Your task to perform on an android device: visit the assistant section in the google photos Image 0: 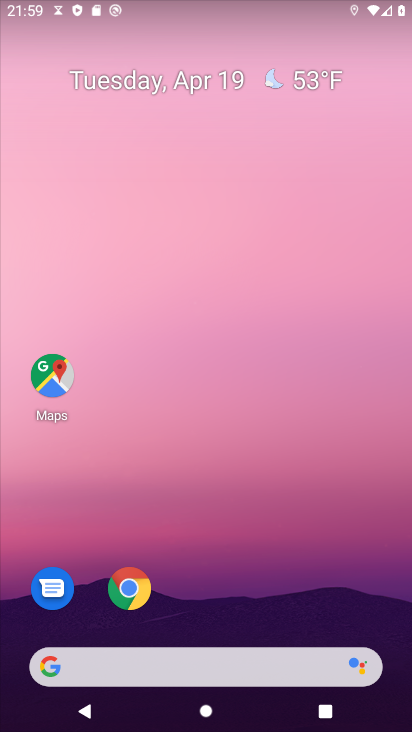
Step 0: drag from (217, 613) to (291, 176)
Your task to perform on an android device: visit the assistant section in the google photos Image 1: 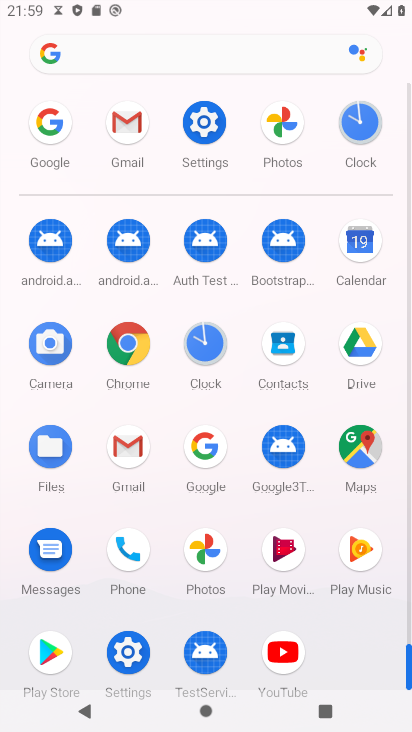
Step 1: click (201, 551)
Your task to perform on an android device: visit the assistant section in the google photos Image 2: 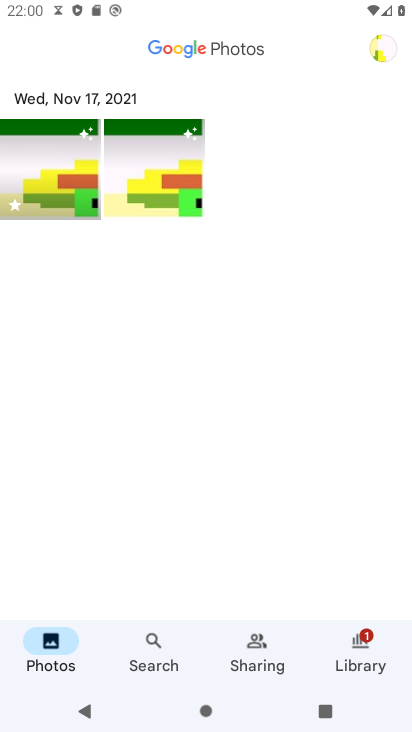
Step 2: click (359, 645)
Your task to perform on an android device: visit the assistant section in the google photos Image 3: 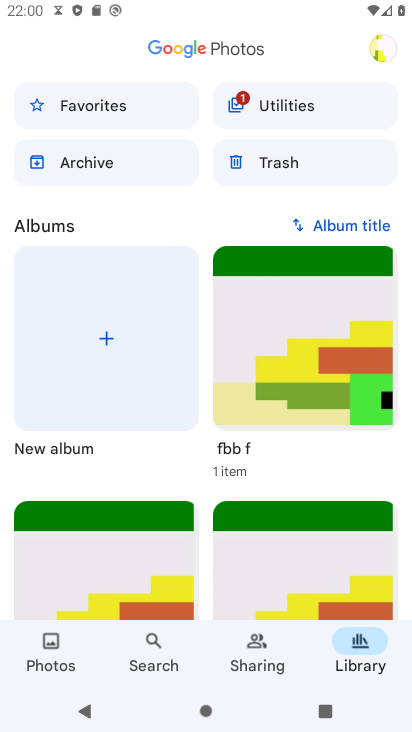
Step 3: click (273, 111)
Your task to perform on an android device: visit the assistant section in the google photos Image 4: 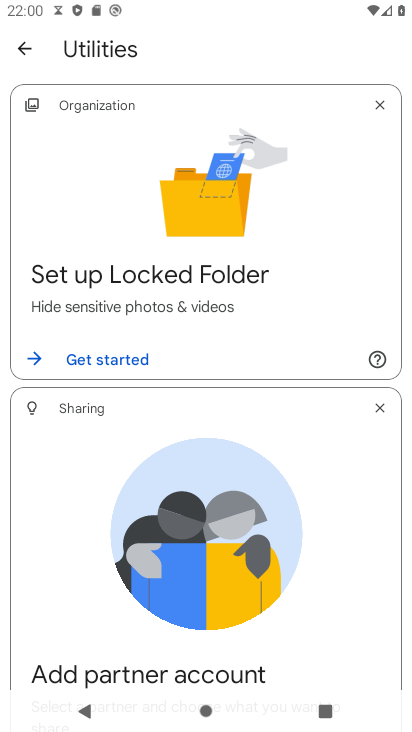
Step 4: drag from (326, 643) to (341, 318)
Your task to perform on an android device: visit the assistant section in the google photos Image 5: 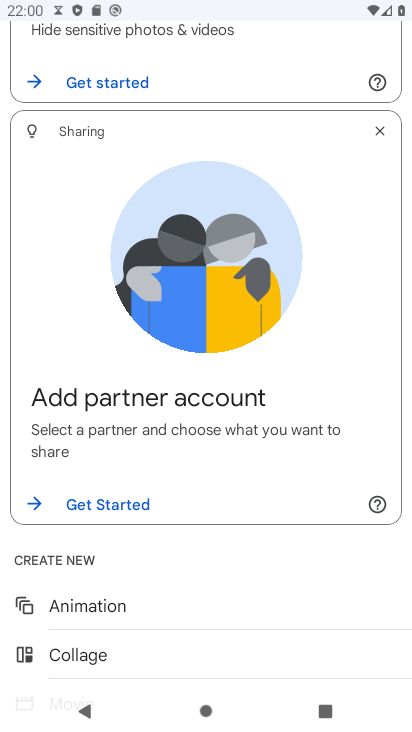
Step 5: drag from (217, 568) to (259, 391)
Your task to perform on an android device: visit the assistant section in the google photos Image 6: 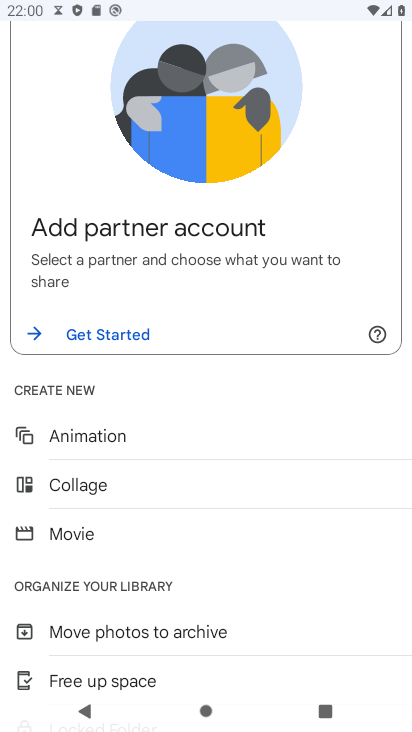
Step 6: drag from (199, 504) to (246, 410)
Your task to perform on an android device: visit the assistant section in the google photos Image 7: 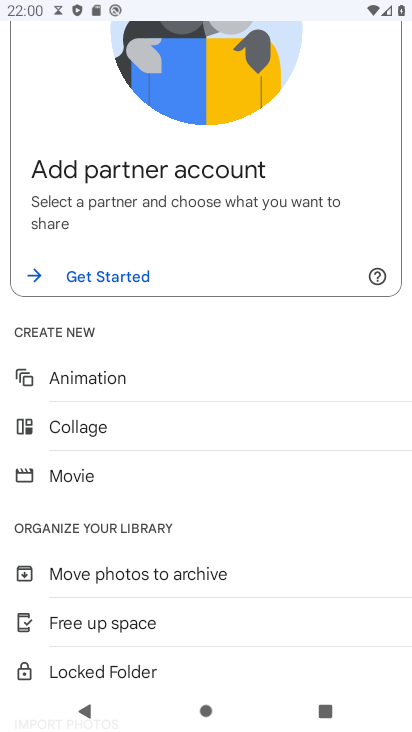
Step 7: drag from (241, 516) to (279, 403)
Your task to perform on an android device: visit the assistant section in the google photos Image 8: 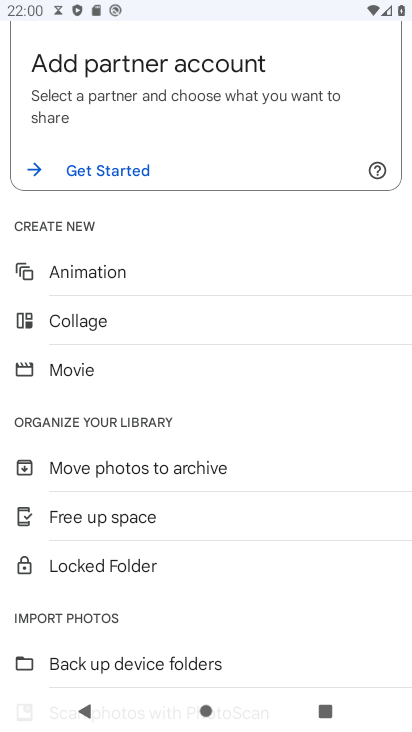
Step 8: drag from (266, 526) to (303, 415)
Your task to perform on an android device: visit the assistant section in the google photos Image 9: 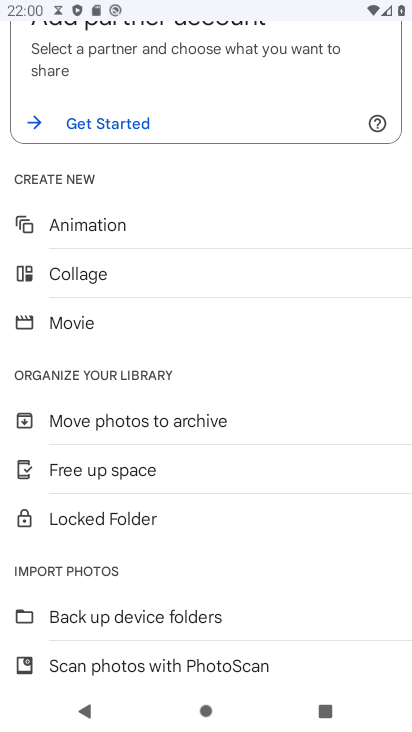
Step 9: drag from (165, 570) to (178, 405)
Your task to perform on an android device: visit the assistant section in the google photos Image 10: 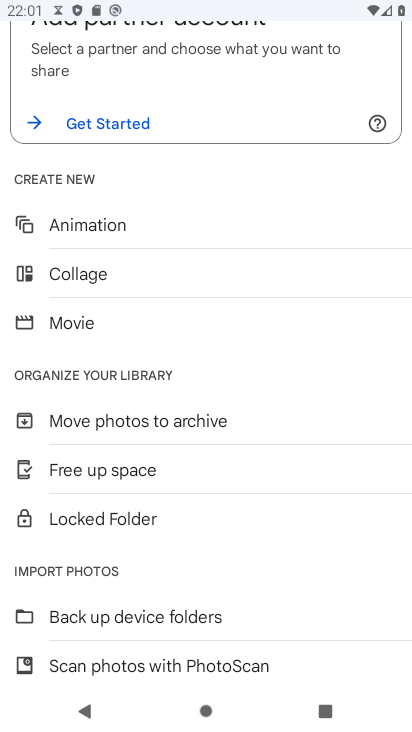
Step 10: drag from (122, 599) to (188, 451)
Your task to perform on an android device: visit the assistant section in the google photos Image 11: 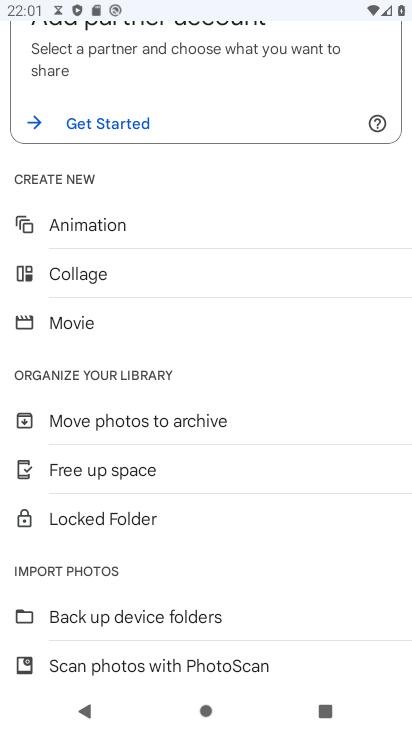
Step 11: drag from (204, 327) to (244, 550)
Your task to perform on an android device: visit the assistant section in the google photos Image 12: 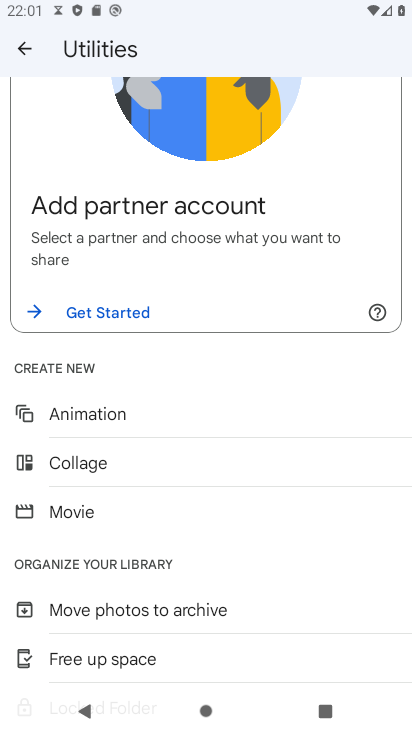
Step 12: drag from (249, 441) to (276, 624)
Your task to perform on an android device: visit the assistant section in the google photos Image 13: 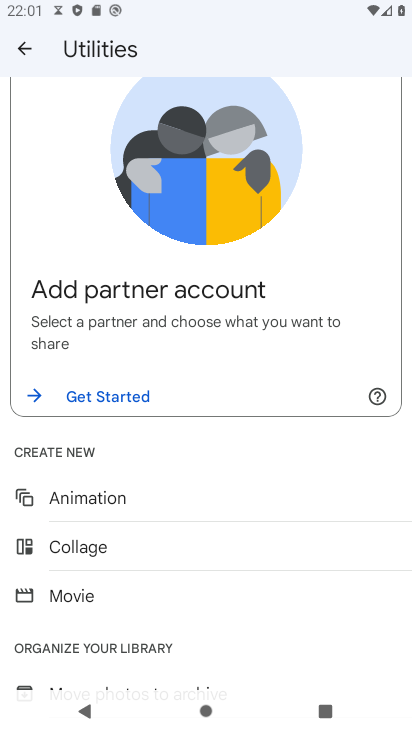
Step 13: press back button
Your task to perform on an android device: visit the assistant section in the google photos Image 14: 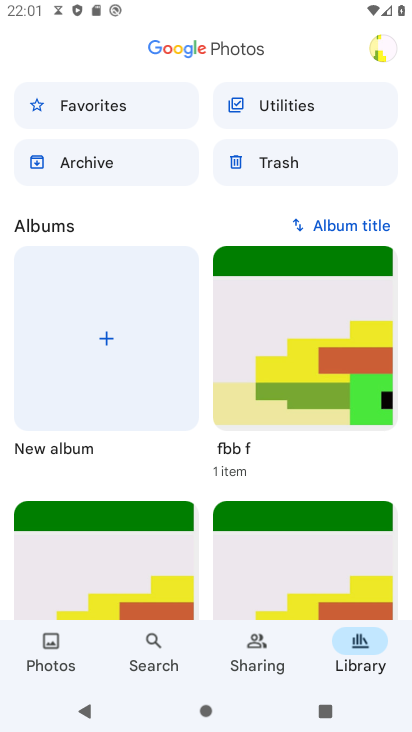
Step 14: click (114, 101)
Your task to perform on an android device: visit the assistant section in the google photos Image 15: 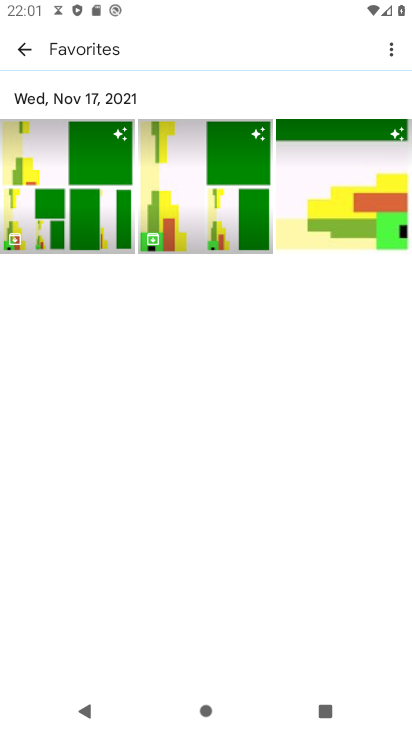
Step 15: press back button
Your task to perform on an android device: visit the assistant section in the google photos Image 16: 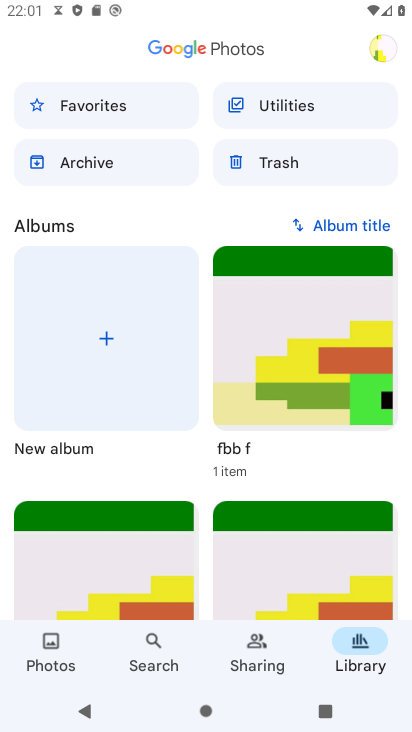
Step 16: click (131, 158)
Your task to perform on an android device: visit the assistant section in the google photos Image 17: 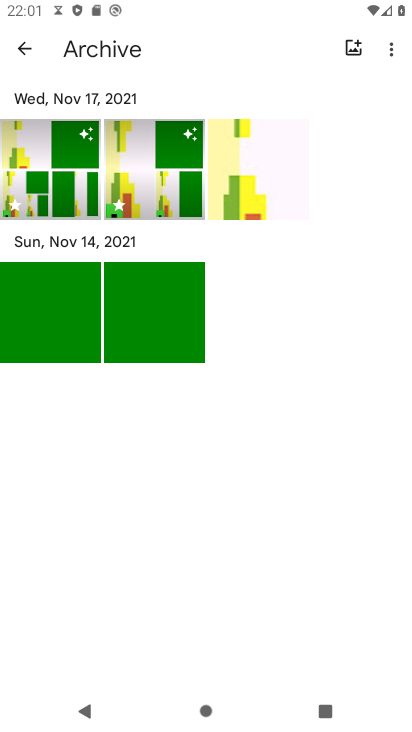
Step 17: press back button
Your task to perform on an android device: visit the assistant section in the google photos Image 18: 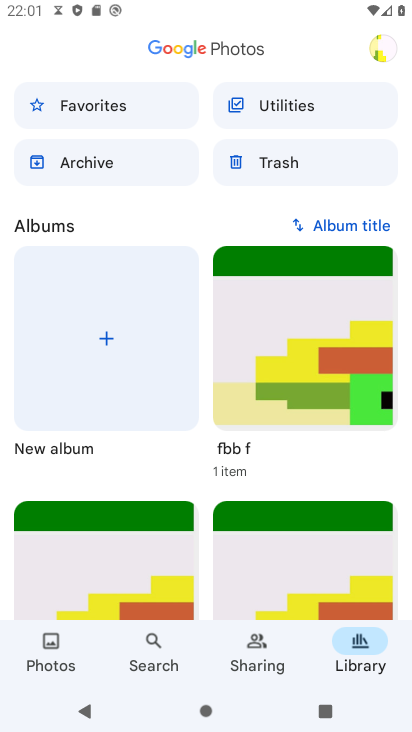
Step 18: click (264, 653)
Your task to perform on an android device: visit the assistant section in the google photos Image 19: 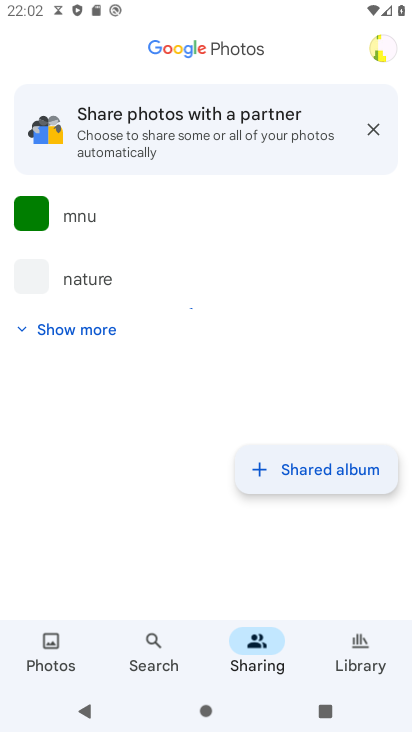
Step 19: click (162, 656)
Your task to perform on an android device: visit the assistant section in the google photos Image 20: 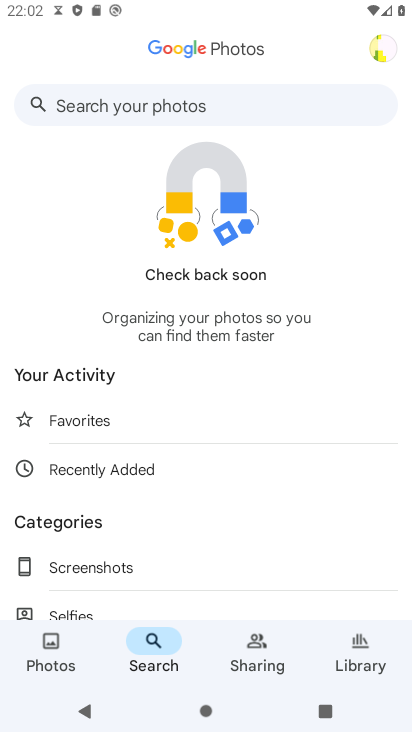
Step 20: drag from (222, 535) to (272, 442)
Your task to perform on an android device: visit the assistant section in the google photos Image 21: 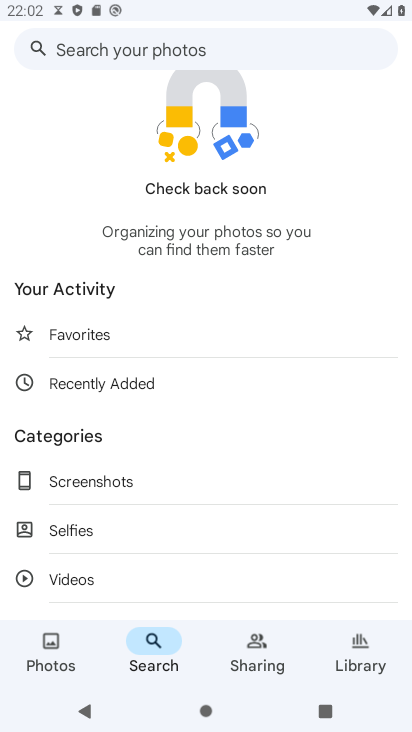
Step 21: drag from (106, 536) to (160, 451)
Your task to perform on an android device: visit the assistant section in the google photos Image 22: 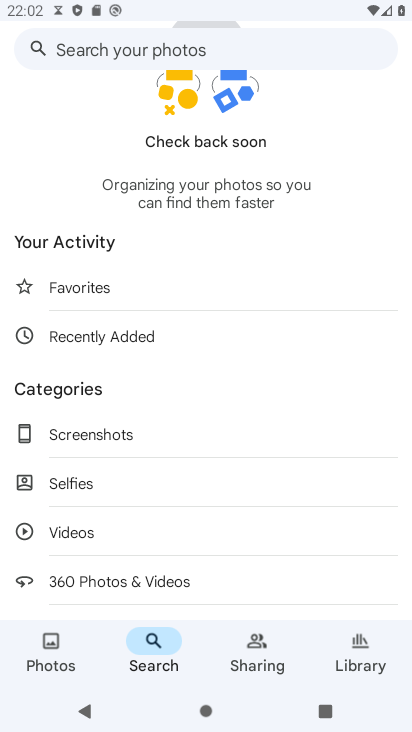
Step 22: drag from (145, 513) to (192, 431)
Your task to perform on an android device: visit the assistant section in the google photos Image 23: 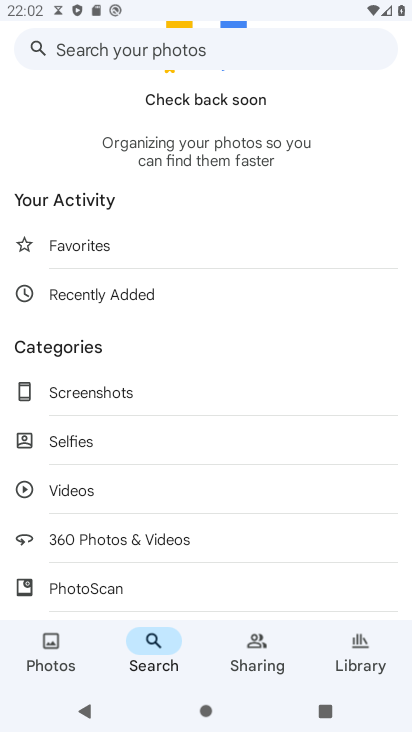
Step 23: drag from (192, 538) to (230, 455)
Your task to perform on an android device: visit the assistant section in the google photos Image 24: 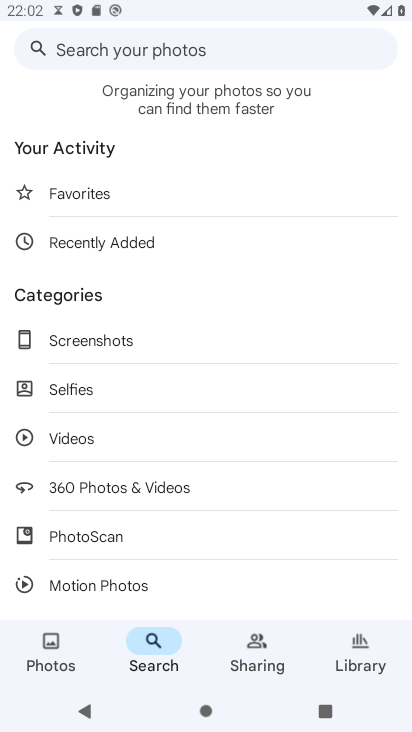
Step 24: drag from (199, 563) to (216, 470)
Your task to perform on an android device: visit the assistant section in the google photos Image 25: 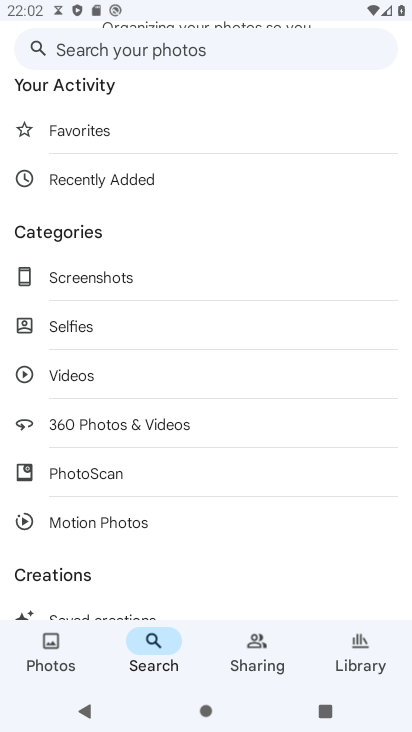
Step 25: drag from (176, 566) to (255, 451)
Your task to perform on an android device: visit the assistant section in the google photos Image 26: 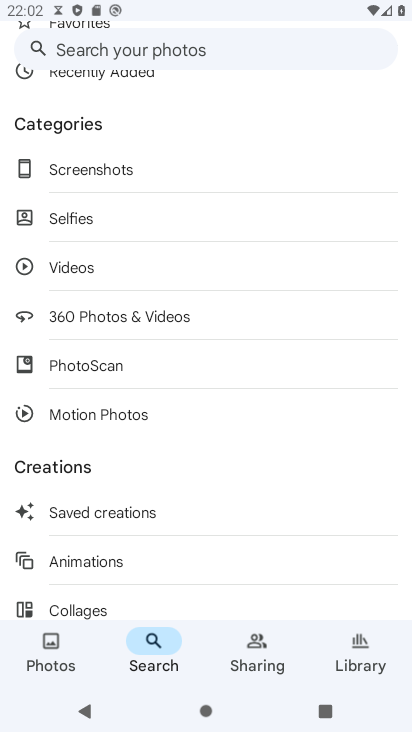
Step 26: click (151, 519)
Your task to perform on an android device: visit the assistant section in the google photos Image 27: 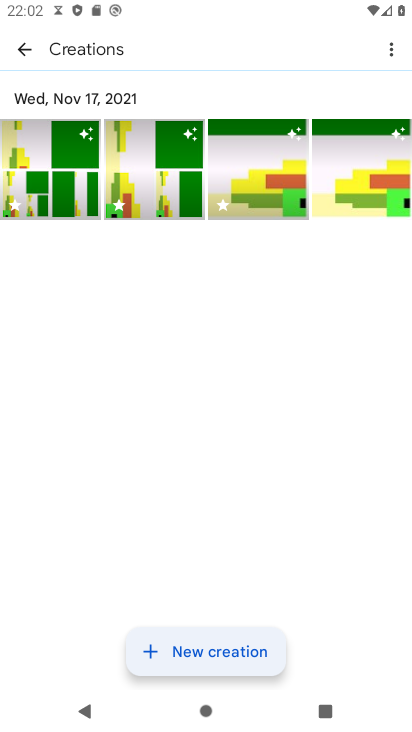
Step 27: click (35, 51)
Your task to perform on an android device: visit the assistant section in the google photos Image 28: 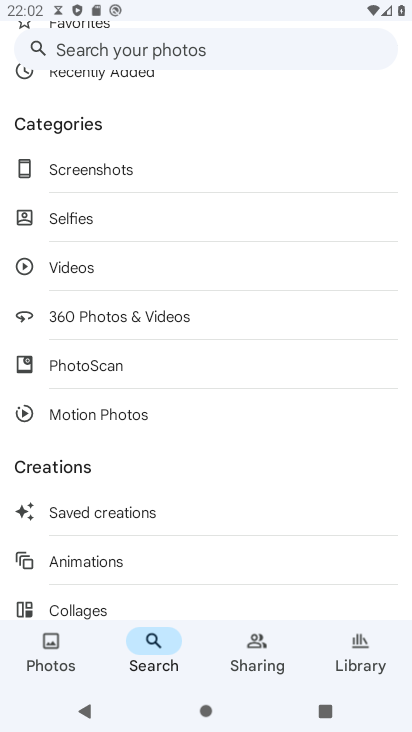
Step 28: drag from (138, 546) to (215, 430)
Your task to perform on an android device: visit the assistant section in the google photos Image 29: 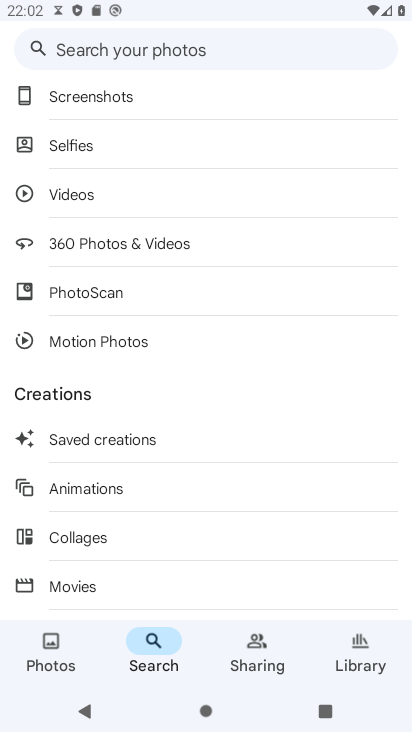
Step 29: drag from (168, 539) to (192, 431)
Your task to perform on an android device: visit the assistant section in the google photos Image 30: 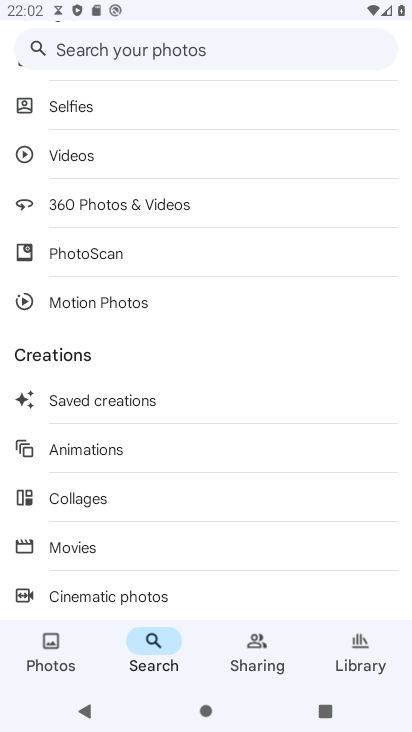
Step 30: drag from (148, 543) to (209, 435)
Your task to perform on an android device: visit the assistant section in the google photos Image 31: 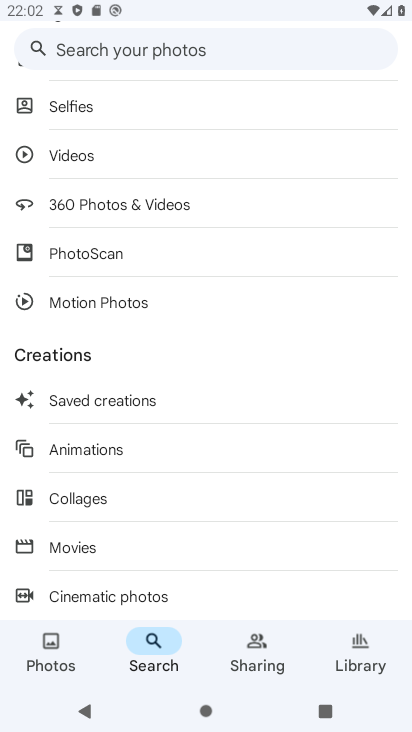
Step 31: click (260, 654)
Your task to perform on an android device: visit the assistant section in the google photos Image 32: 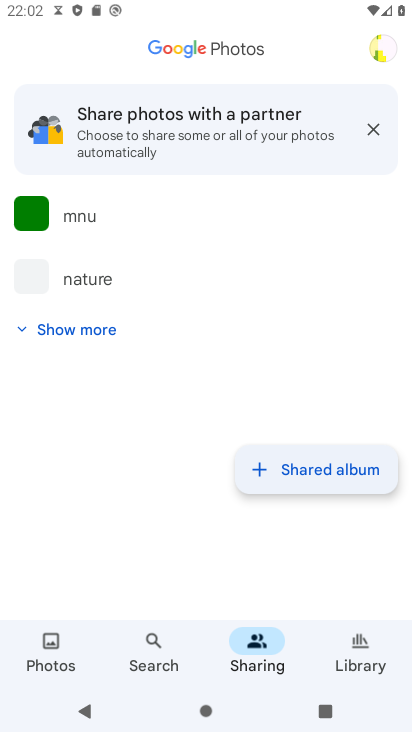
Step 32: click (357, 653)
Your task to perform on an android device: visit the assistant section in the google photos Image 33: 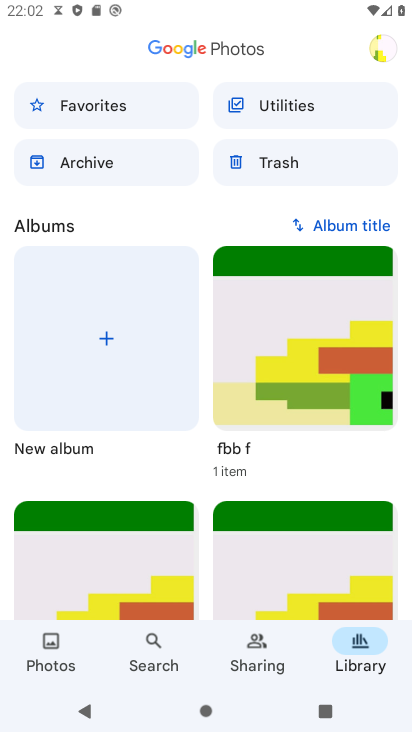
Step 33: task complete